Your task to perform on an android device: delete the emails in spam in the gmail app Image 0: 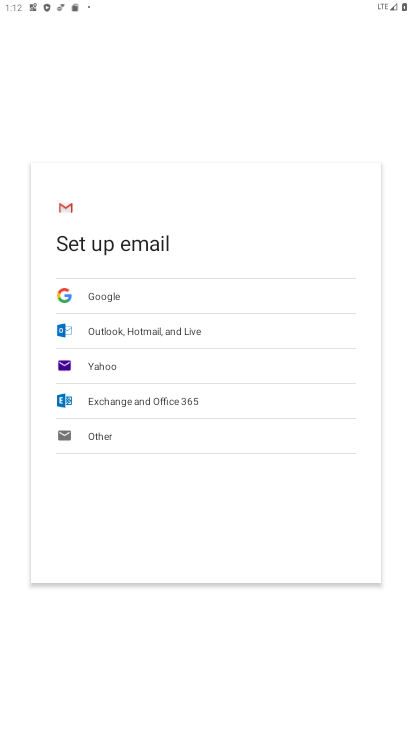
Step 0: press home button
Your task to perform on an android device: delete the emails in spam in the gmail app Image 1: 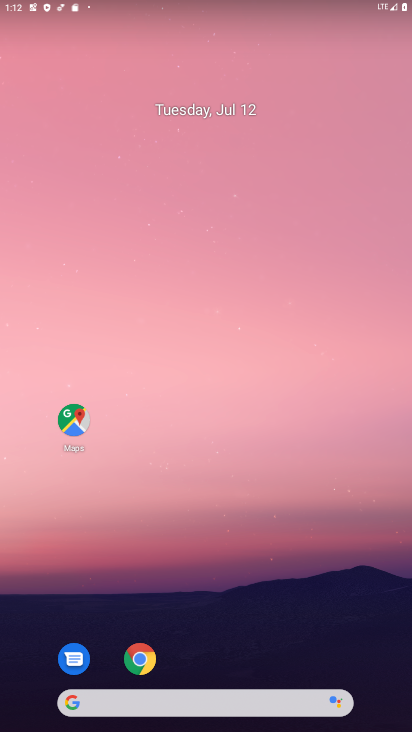
Step 1: drag from (244, 730) to (238, 118)
Your task to perform on an android device: delete the emails in spam in the gmail app Image 2: 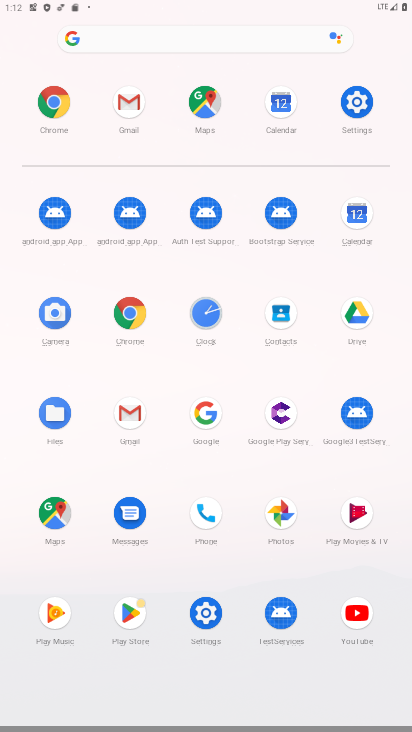
Step 2: click (124, 414)
Your task to perform on an android device: delete the emails in spam in the gmail app Image 3: 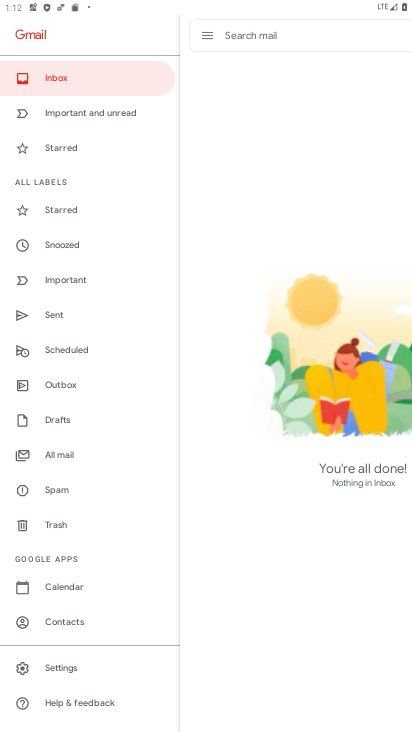
Step 3: click (61, 490)
Your task to perform on an android device: delete the emails in spam in the gmail app Image 4: 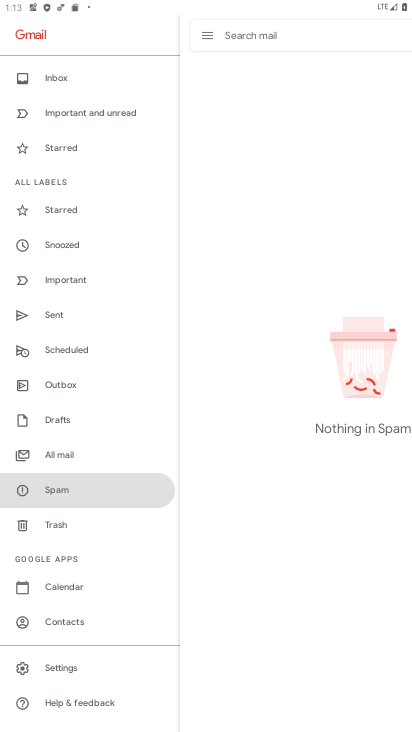
Step 4: task complete